Your task to perform on an android device: Show the shopping cart on costco.com. Image 0: 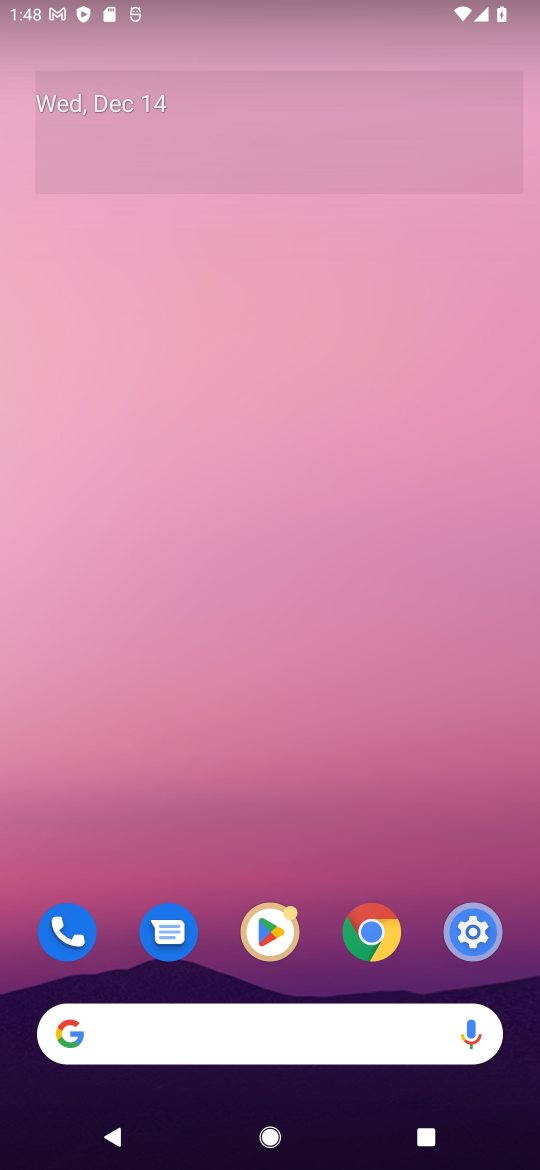
Step 0: drag from (260, 843) to (299, 570)
Your task to perform on an android device: Show the shopping cart on costco.com. Image 1: 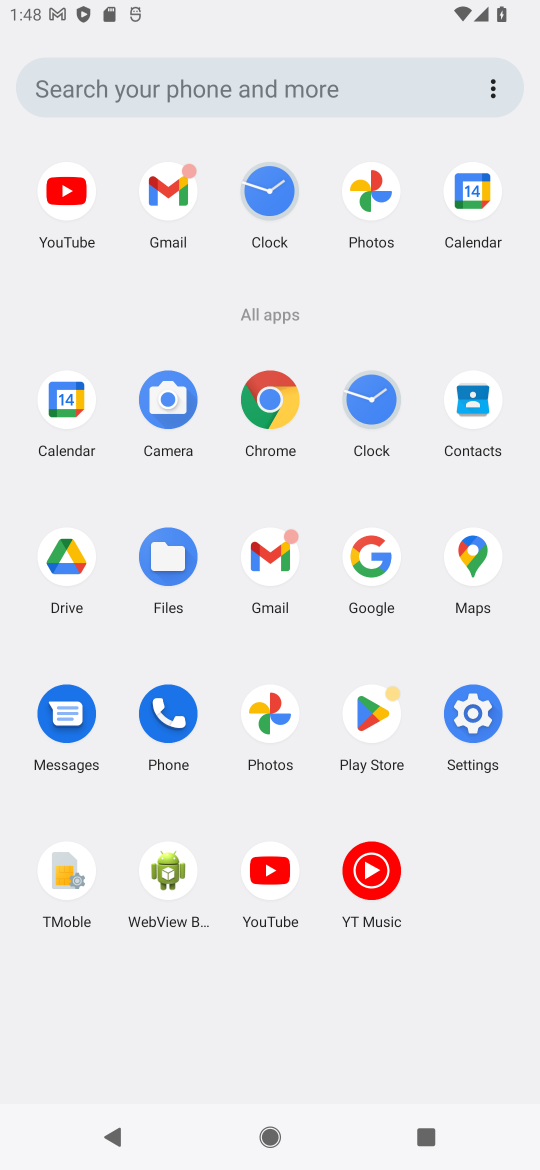
Step 1: press home button
Your task to perform on an android device: Show the shopping cart on costco.com. Image 2: 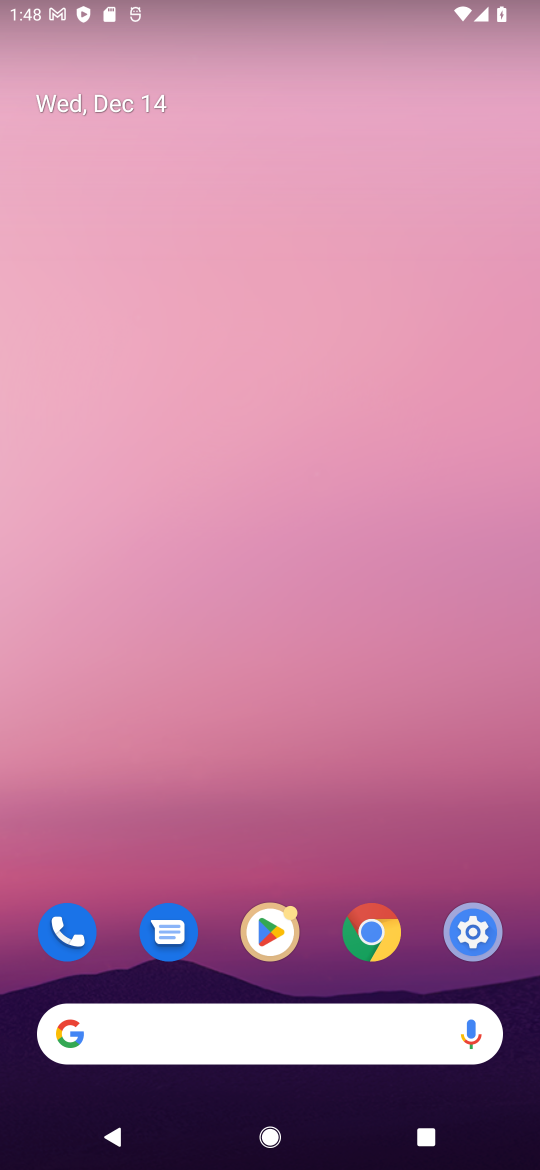
Step 2: click (240, 1039)
Your task to perform on an android device: Show the shopping cart on costco.com. Image 3: 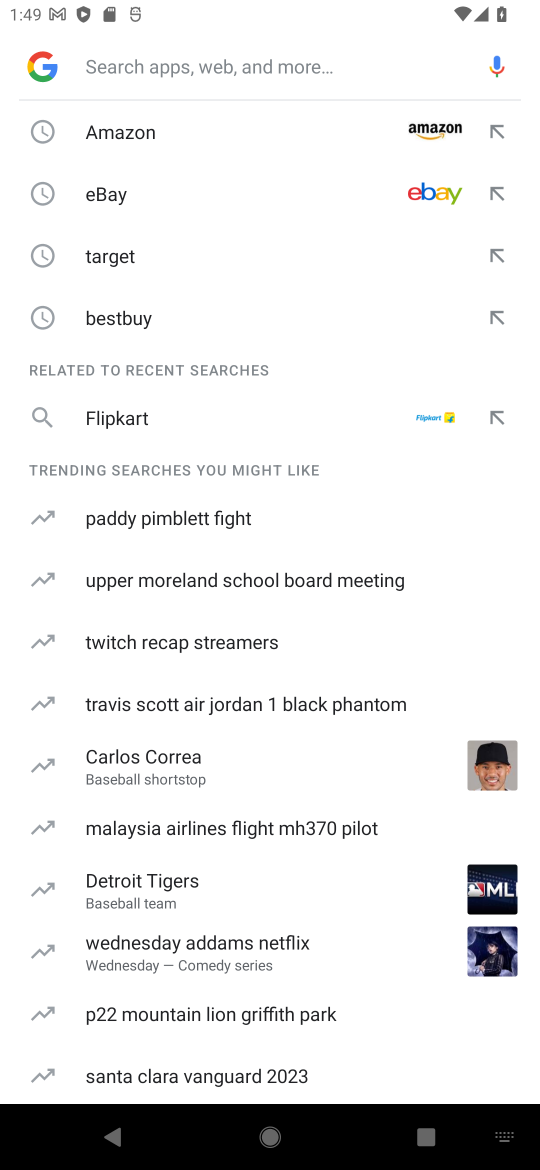
Step 3: type "costco.com"
Your task to perform on an android device: Show the shopping cart on costco.com. Image 4: 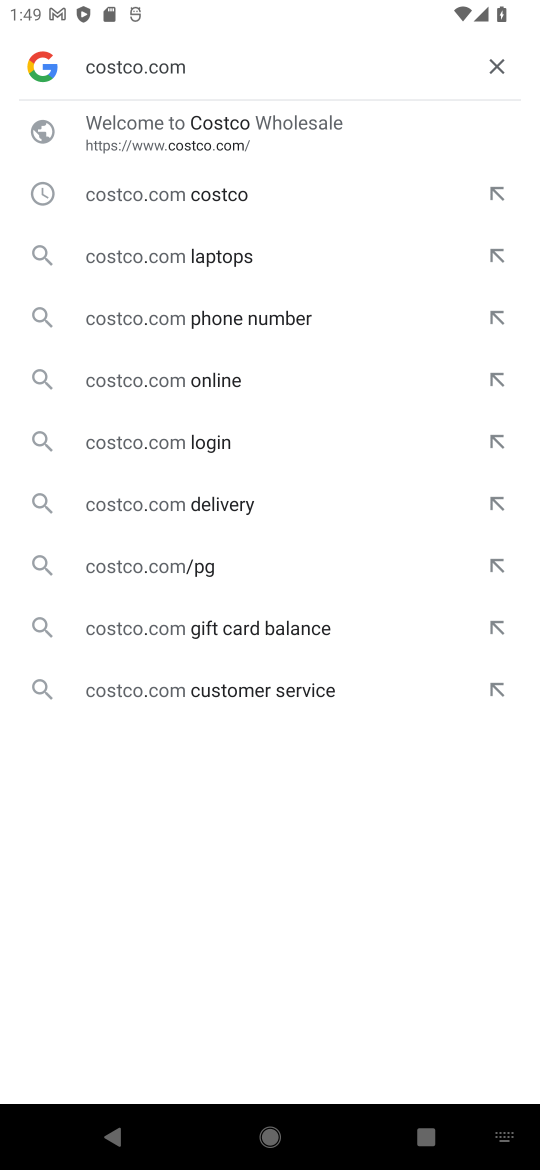
Step 4: click (225, 146)
Your task to perform on an android device: Show the shopping cart on costco.com. Image 5: 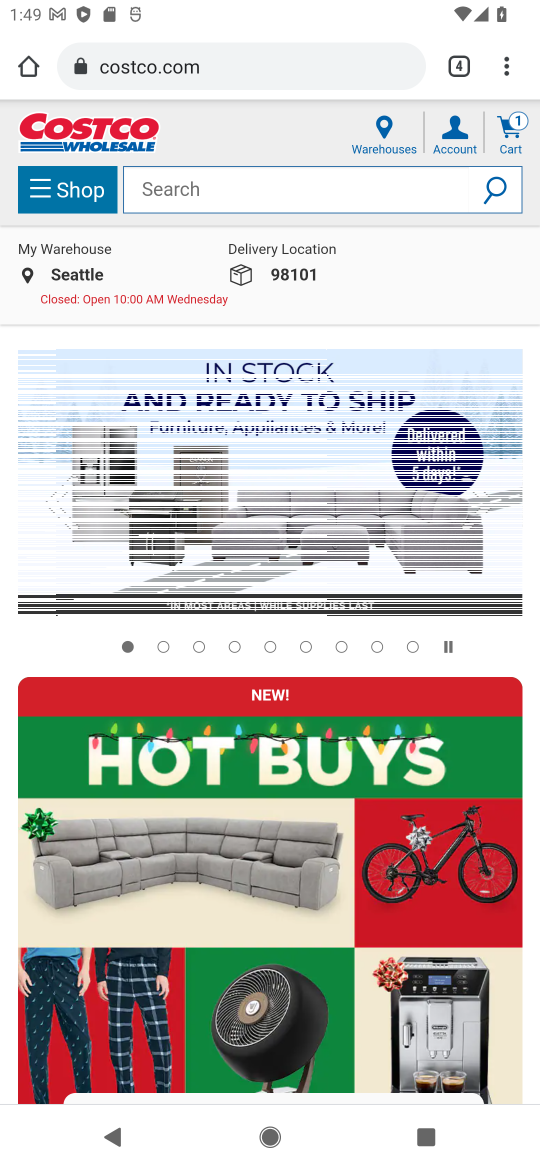
Step 5: click (514, 132)
Your task to perform on an android device: Show the shopping cart on costco.com. Image 6: 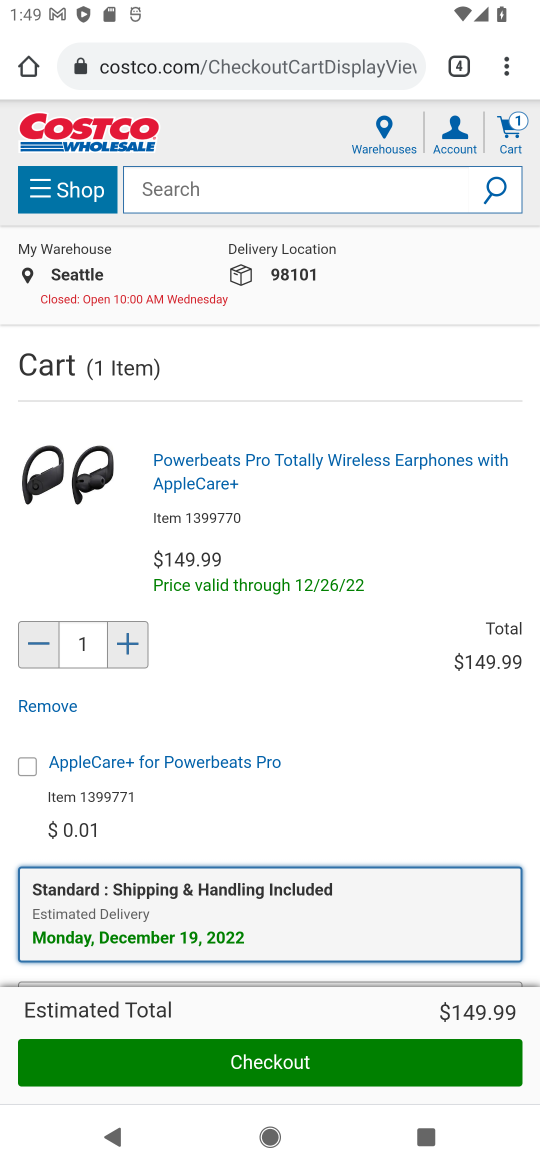
Step 6: click (271, 1072)
Your task to perform on an android device: Show the shopping cart on costco.com. Image 7: 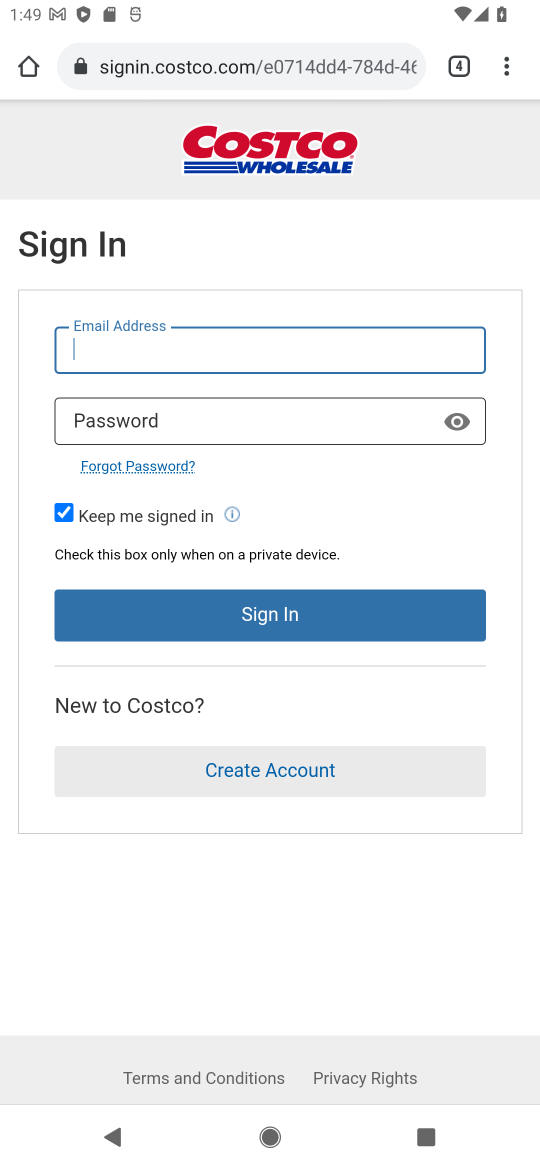
Step 7: task complete